Your task to perform on an android device: turn off location history Image 0: 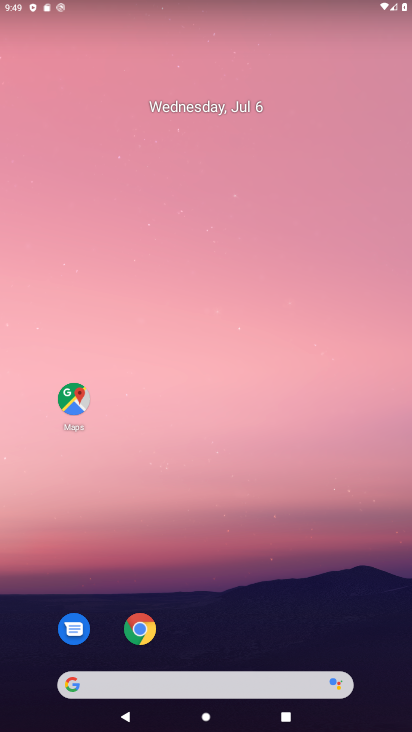
Step 0: drag from (205, 635) to (207, 83)
Your task to perform on an android device: turn off location history Image 1: 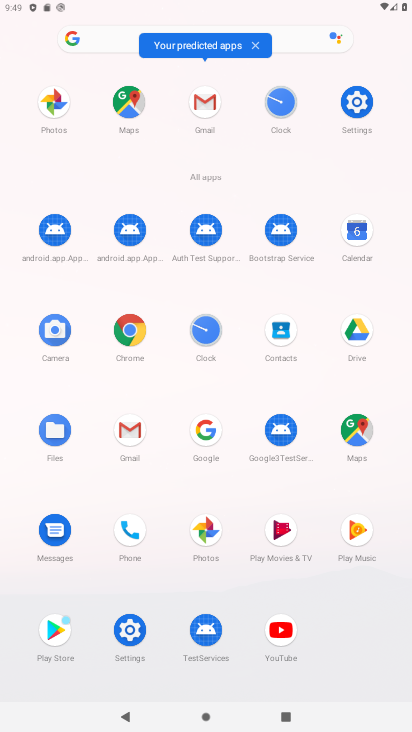
Step 1: click (358, 135)
Your task to perform on an android device: turn off location history Image 2: 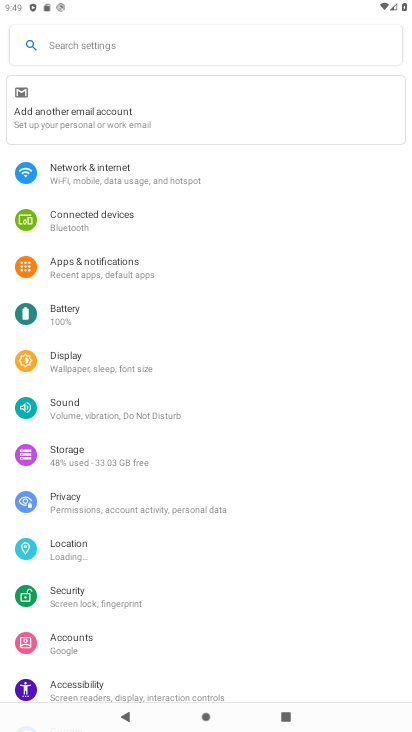
Step 2: click (86, 547)
Your task to perform on an android device: turn off location history Image 3: 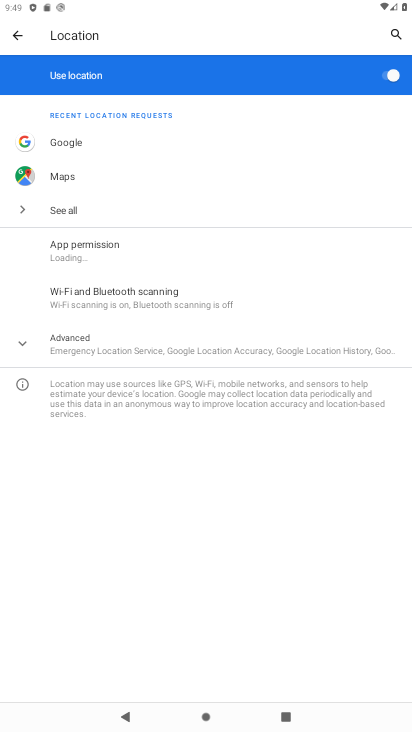
Step 3: click (99, 339)
Your task to perform on an android device: turn off location history Image 4: 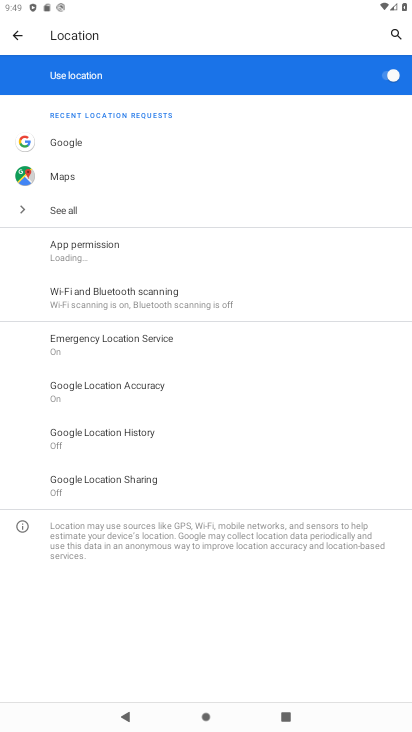
Step 4: click (153, 428)
Your task to perform on an android device: turn off location history Image 5: 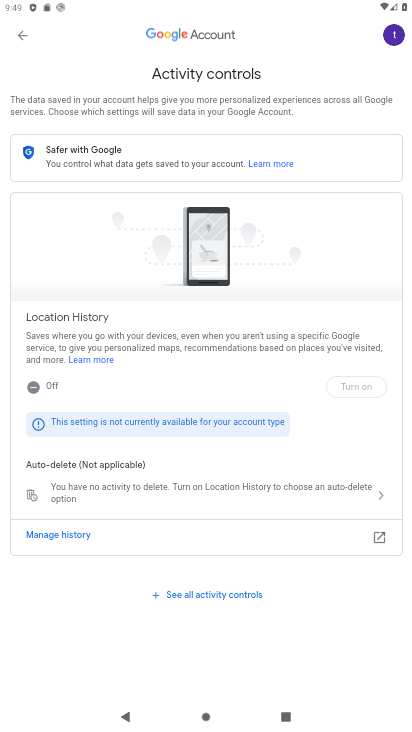
Step 5: task complete